Your task to perform on an android device: read, delete, or share a saved page in the chrome app Image 0: 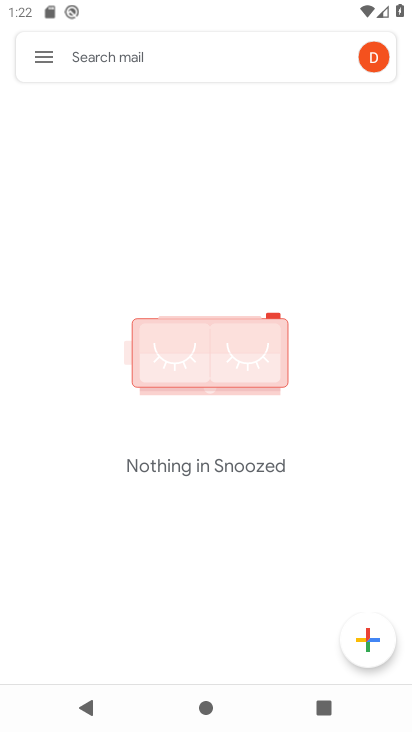
Step 0: press home button
Your task to perform on an android device: read, delete, or share a saved page in the chrome app Image 1: 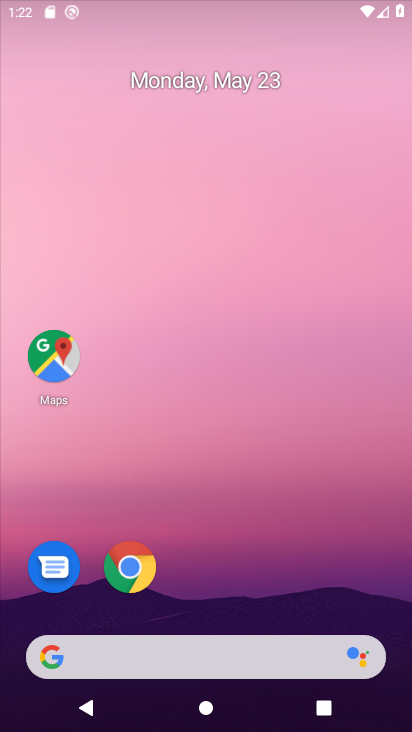
Step 1: drag from (284, 542) to (260, 222)
Your task to perform on an android device: read, delete, or share a saved page in the chrome app Image 2: 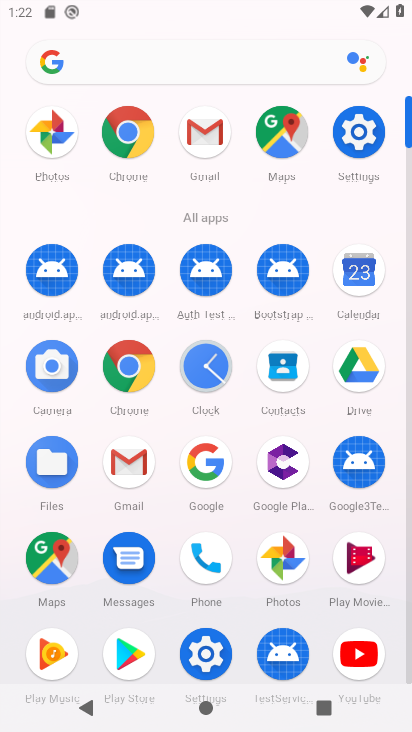
Step 2: click (198, 452)
Your task to perform on an android device: read, delete, or share a saved page in the chrome app Image 3: 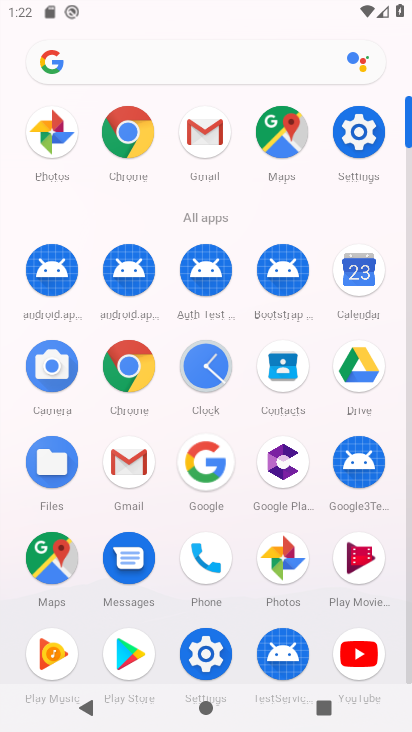
Step 3: click (137, 367)
Your task to perform on an android device: read, delete, or share a saved page in the chrome app Image 4: 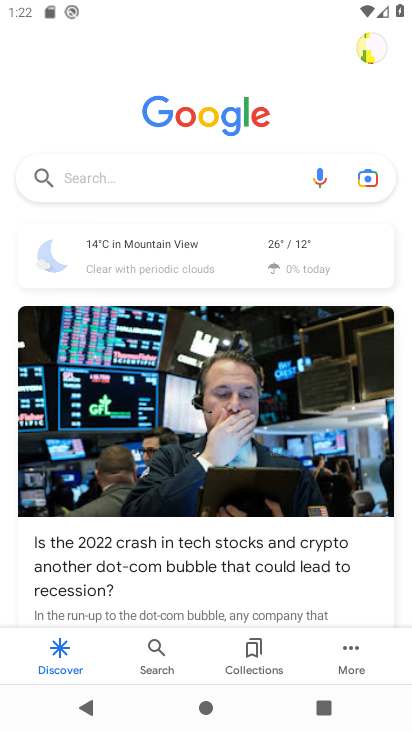
Step 4: task complete